Your task to perform on an android device: turn off smart reply in the gmail app Image 0: 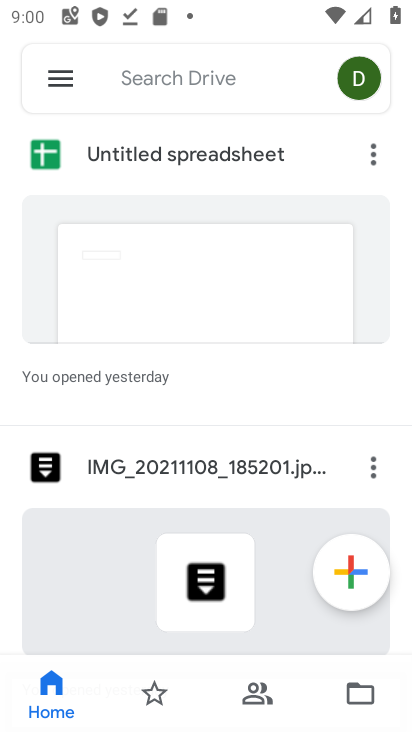
Step 0: press back button
Your task to perform on an android device: turn off smart reply in the gmail app Image 1: 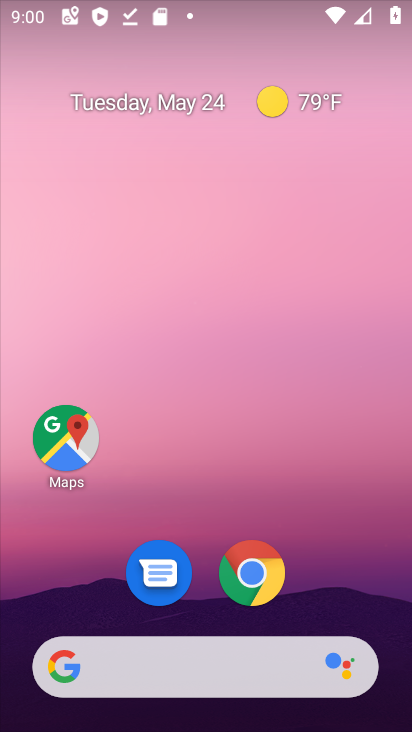
Step 1: drag from (277, 645) to (208, 131)
Your task to perform on an android device: turn off smart reply in the gmail app Image 2: 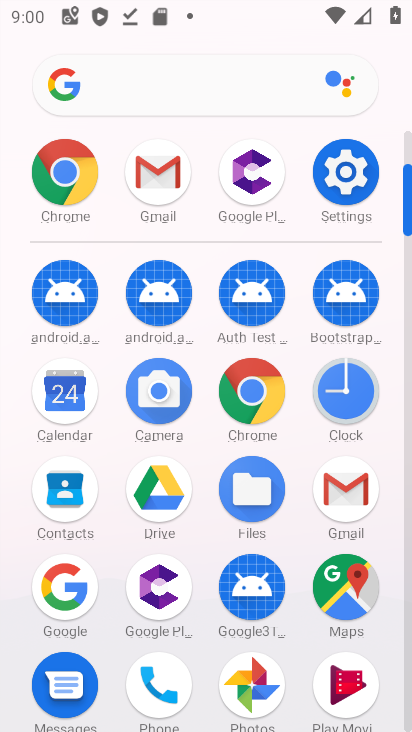
Step 2: click (332, 495)
Your task to perform on an android device: turn off smart reply in the gmail app Image 3: 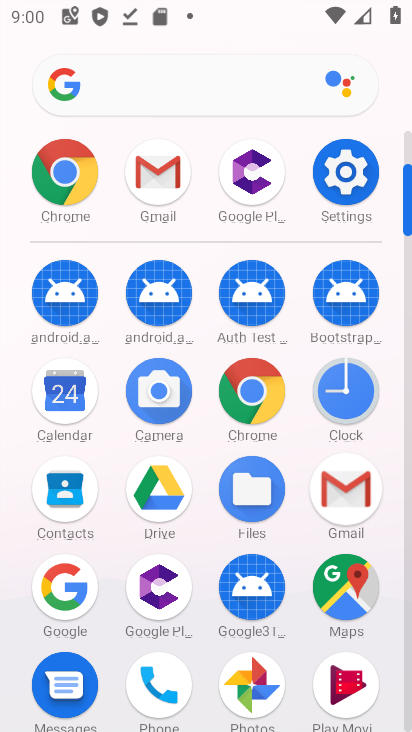
Step 3: click (334, 491)
Your task to perform on an android device: turn off smart reply in the gmail app Image 4: 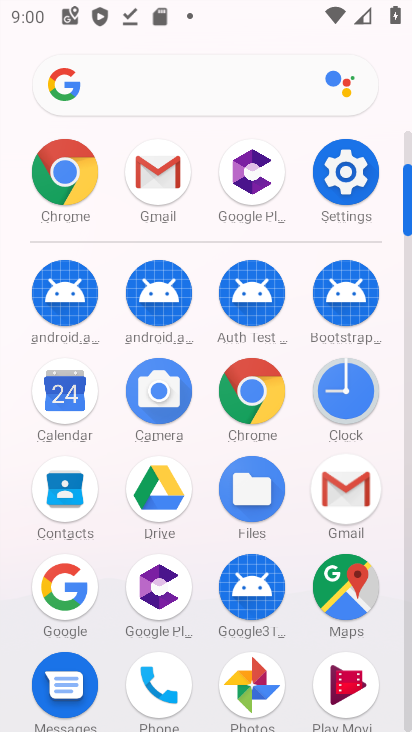
Step 4: click (334, 490)
Your task to perform on an android device: turn off smart reply in the gmail app Image 5: 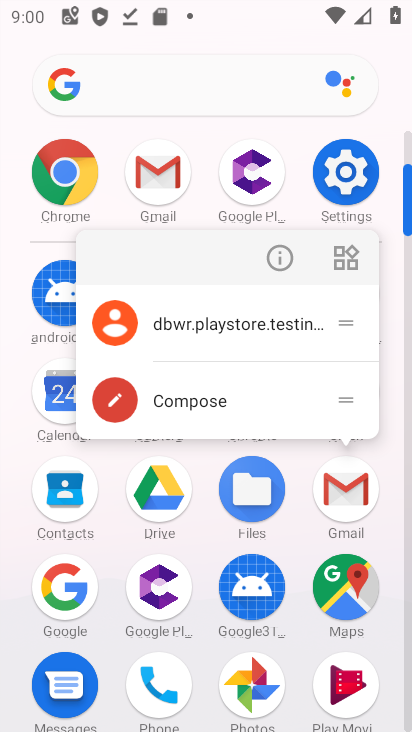
Step 5: click (334, 487)
Your task to perform on an android device: turn off smart reply in the gmail app Image 6: 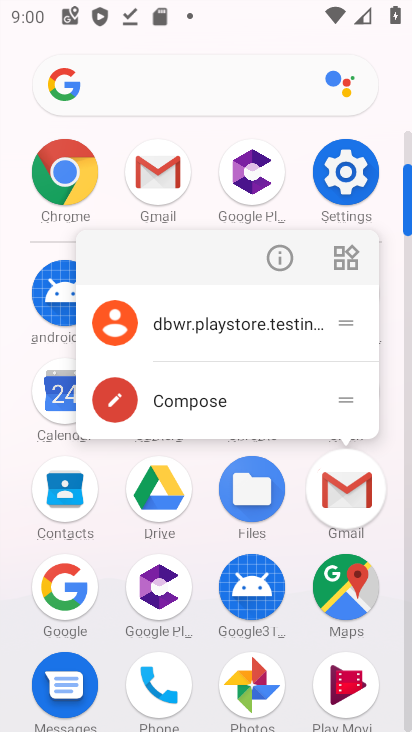
Step 6: click (334, 487)
Your task to perform on an android device: turn off smart reply in the gmail app Image 7: 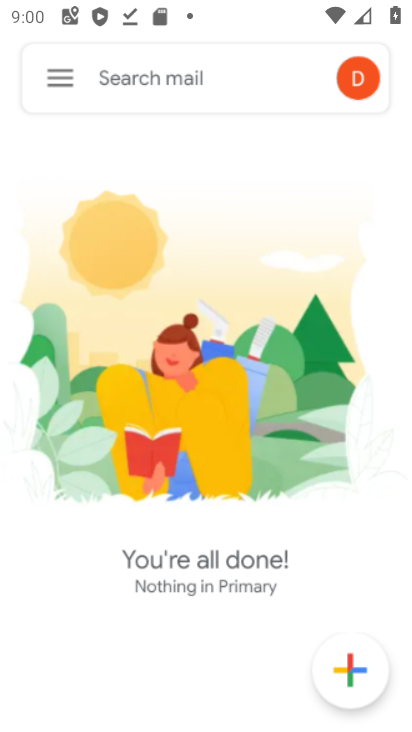
Step 7: click (335, 483)
Your task to perform on an android device: turn off smart reply in the gmail app Image 8: 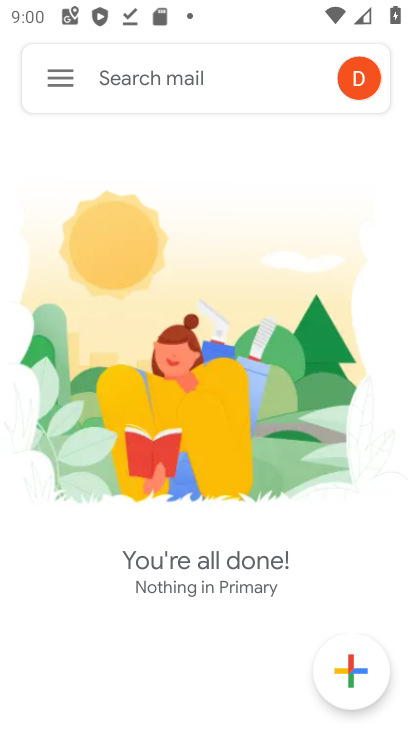
Step 8: drag from (49, 85) to (82, 162)
Your task to perform on an android device: turn off smart reply in the gmail app Image 9: 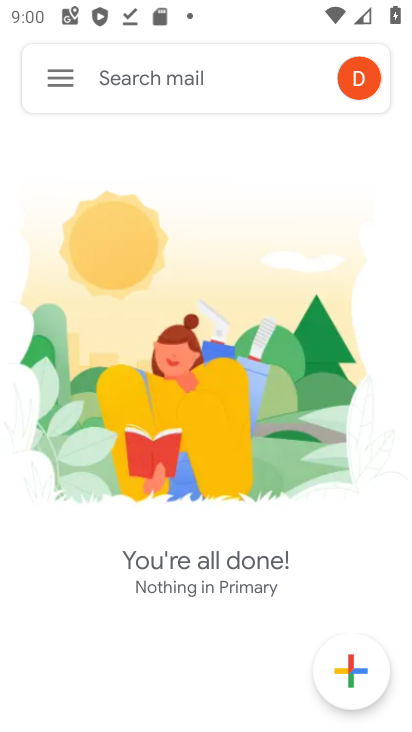
Step 9: drag from (64, 87) to (70, 198)
Your task to perform on an android device: turn off smart reply in the gmail app Image 10: 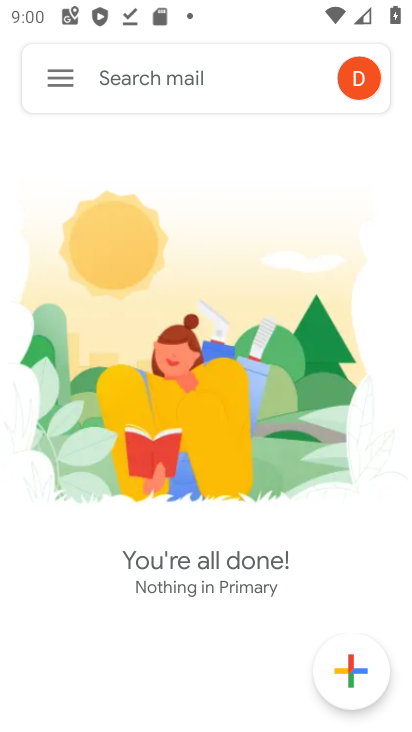
Step 10: click (62, 84)
Your task to perform on an android device: turn off smart reply in the gmail app Image 11: 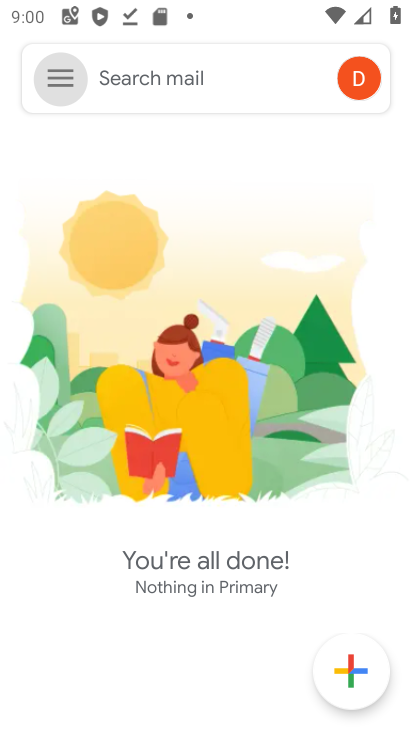
Step 11: drag from (65, 84) to (122, 632)
Your task to perform on an android device: turn off smart reply in the gmail app Image 12: 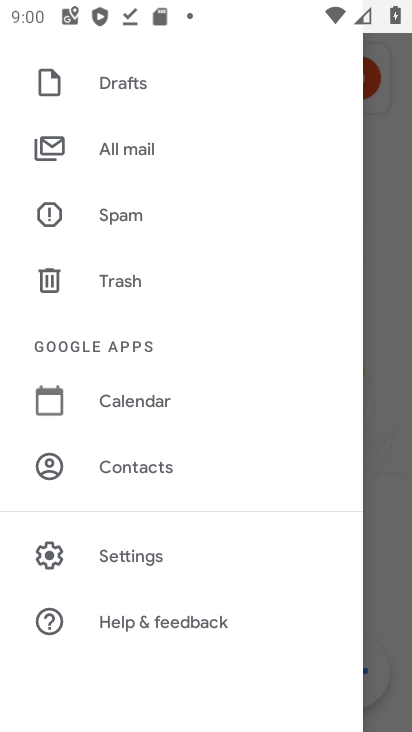
Step 12: click (132, 552)
Your task to perform on an android device: turn off smart reply in the gmail app Image 13: 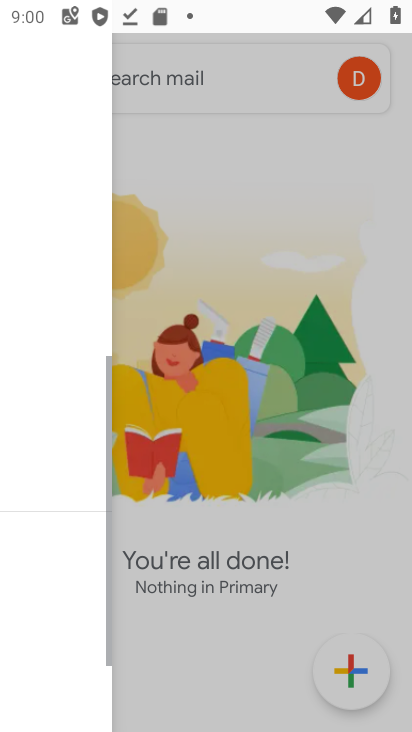
Step 13: click (132, 552)
Your task to perform on an android device: turn off smart reply in the gmail app Image 14: 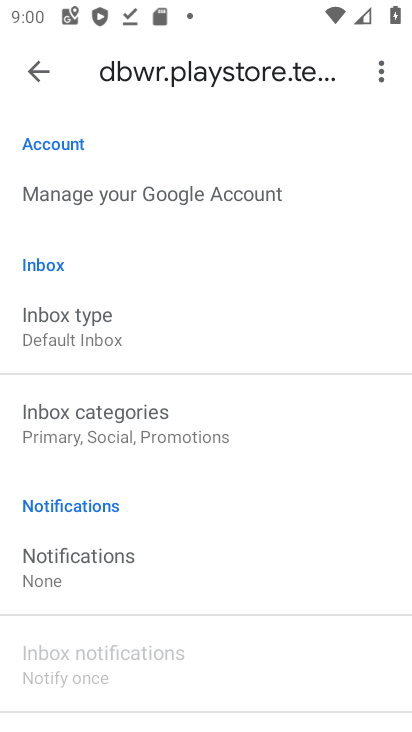
Step 14: drag from (106, 395) to (113, 271)
Your task to perform on an android device: turn off smart reply in the gmail app Image 15: 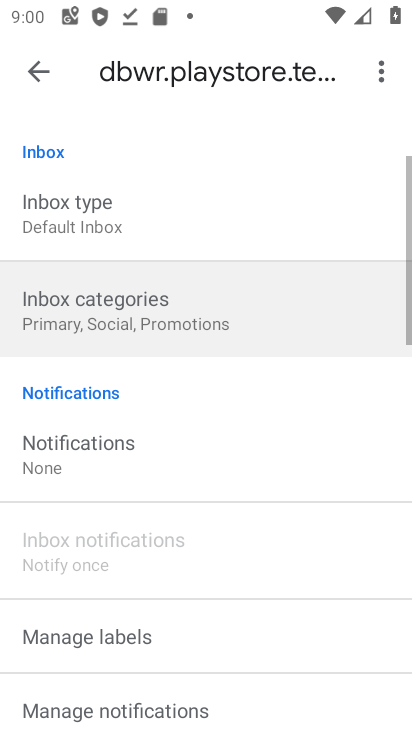
Step 15: drag from (138, 472) to (184, 87)
Your task to perform on an android device: turn off smart reply in the gmail app Image 16: 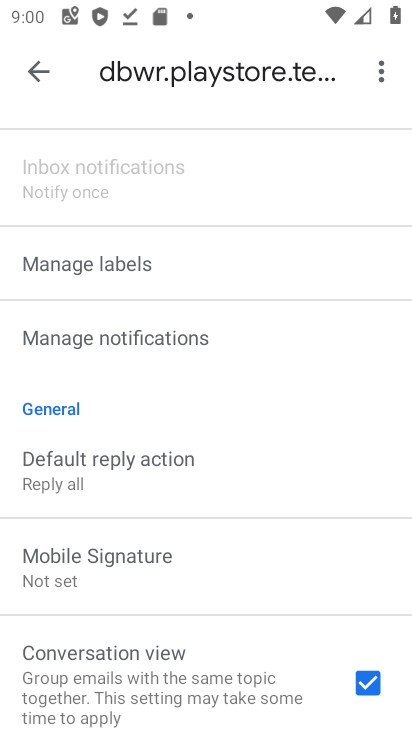
Step 16: drag from (59, 158) to (108, 426)
Your task to perform on an android device: turn off smart reply in the gmail app Image 17: 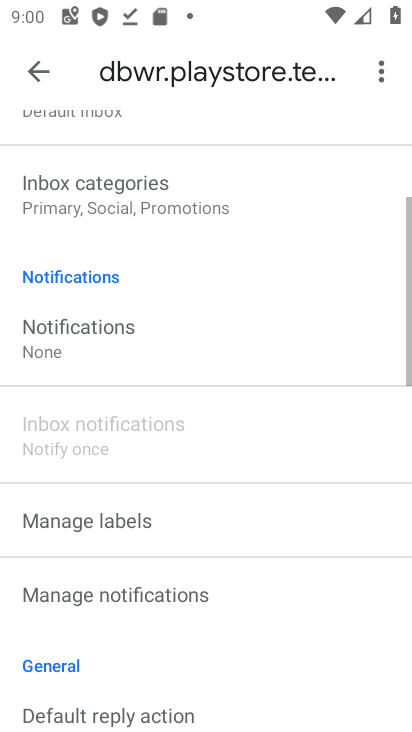
Step 17: drag from (63, 288) to (107, 718)
Your task to perform on an android device: turn off smart reply in the gmail app Image 18: 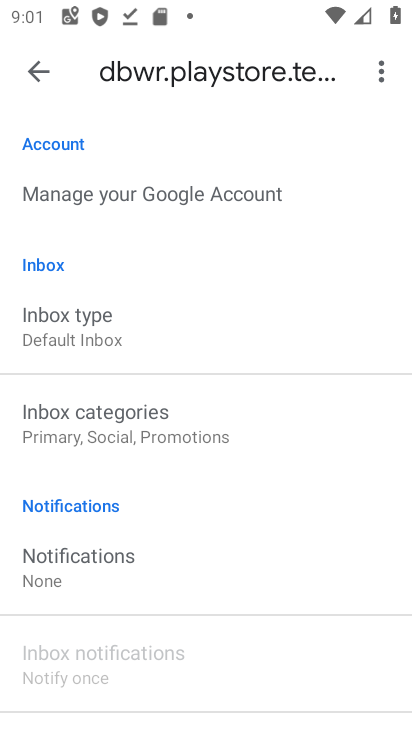
Step 18: drag from (117, 500) to (113, 133)
Your task to perform on an android device: turn off smart reply in the gmail app Image 19: 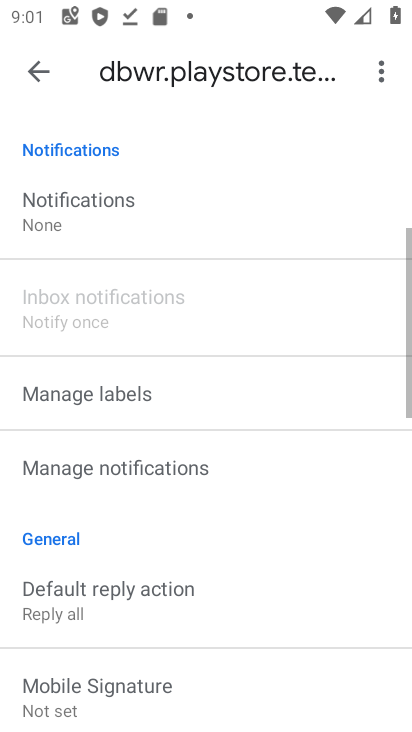
Step 19: drag from (182, 489) to (234, 88)
Your task to perform on an android device: turn off smart reply in the gmail app Image 20: 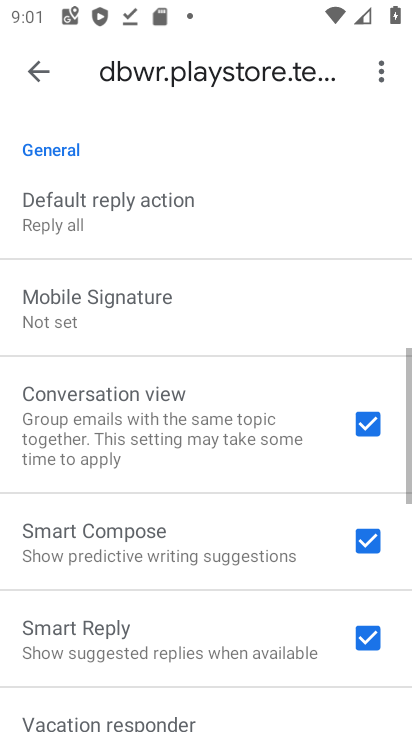
Step 20: drag from (216, 423) to (215, 49)
Your task to perform on an android device: turn off smart reply in the gmail app Image 21: 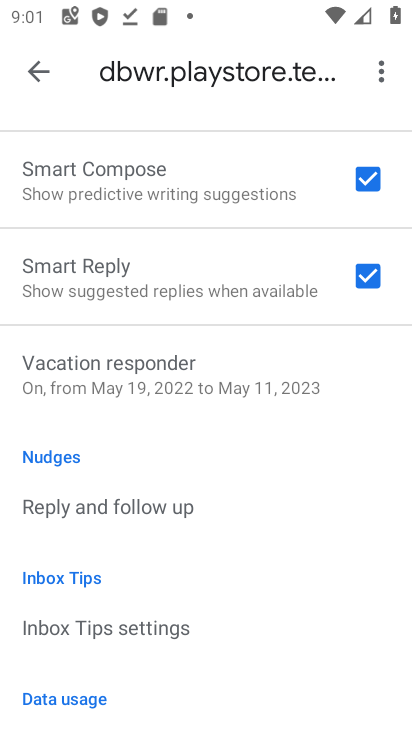
Step 21: click (357, 267)
Your task to perform on an android device: turn off smart reply in the gmail app Image 22: 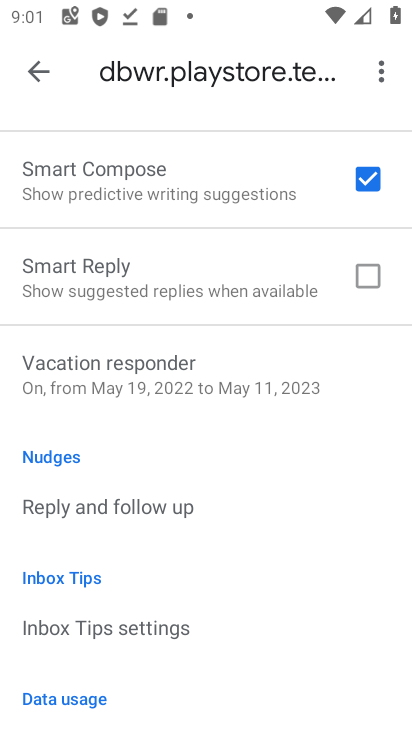
Step 22: task complete